Your task to perform on an android device: turn off javascript in the chrome app Image 0: 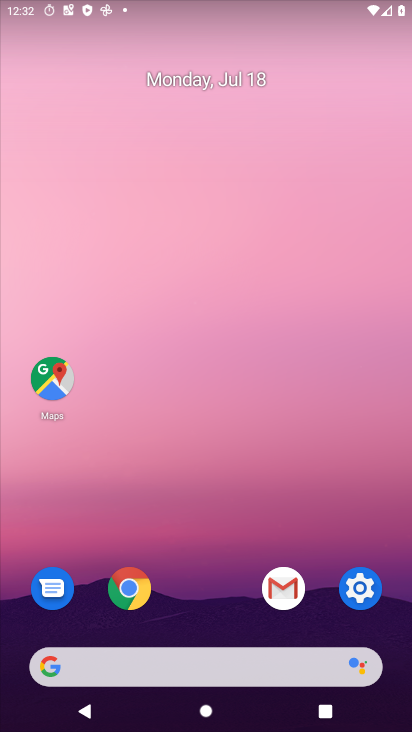
Step 0: click (142, 608)
Your task to perform on an android device: turn off javascript in the chrome app Image 1: 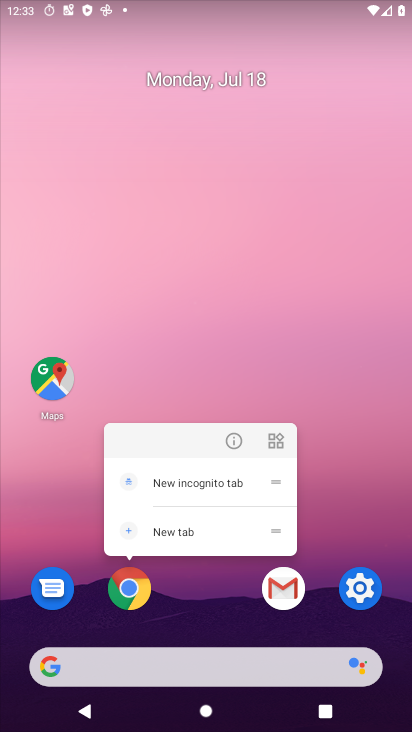
Step 1: click (134, 595)
Your task to perform on an android device: turn off javascript in the chrome app Image 2: 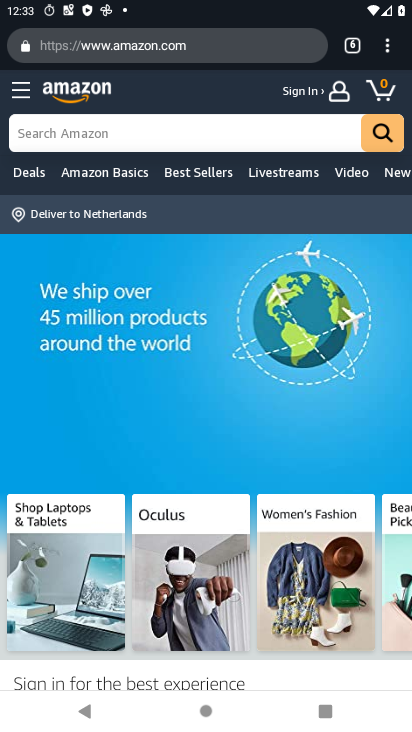
Step 2: click (385, 54)
Your task to perform on an android device: turn off javascript in the chrome app Image 3: 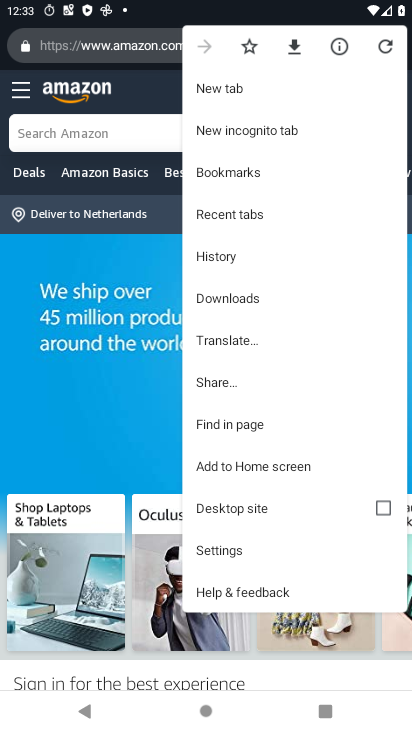
Step 3: click (229, 549)
Your task to perform on an android device: turn off javascript in the chrome app Image 4: 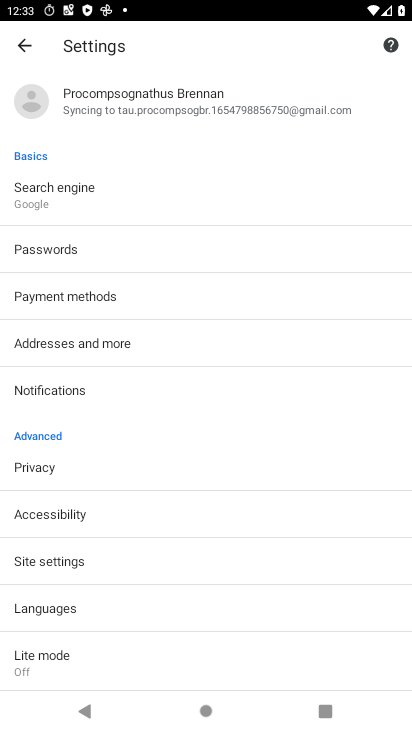
Step 4: click (65, 551)
Your task to perform on an android device: turn off javascript in the chrome app Image 5: 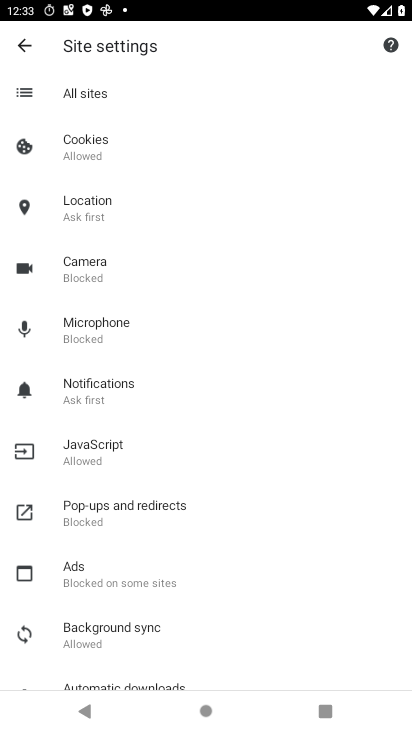
Step 5: click (94, 448)
Your task to perform on an android device: turn off javascript in the chrome app Image 6: 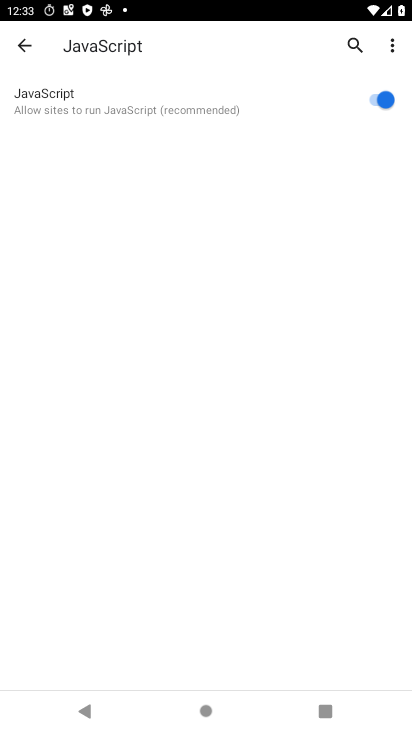
Step 6: click (380, 91)
Your task to perform on an android device: turn off javascript in the chrome app Image 7: 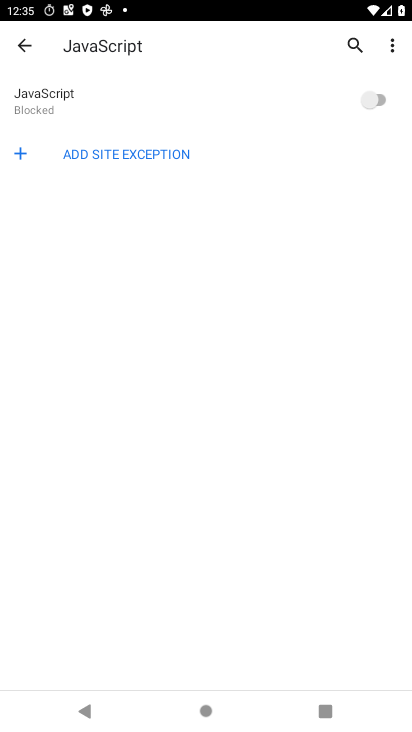
Step 7: task complete